Your task to perform on an android device: Open Chrome and go to the settings page Image 0: 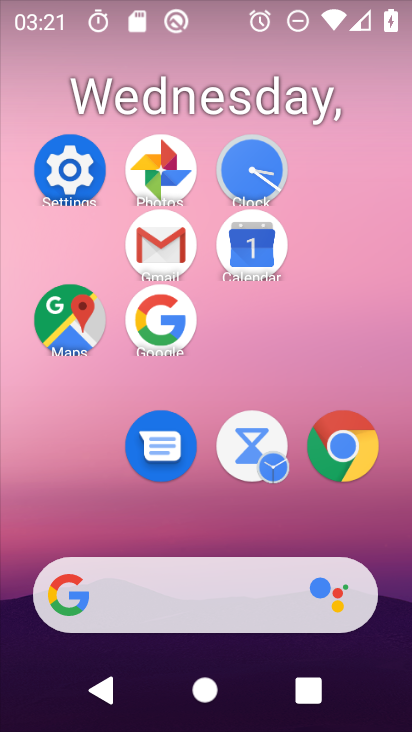
Step 0: click (351, 443)
Your task to perform on an android device: Open Chrome and go to the settings page Image 1: 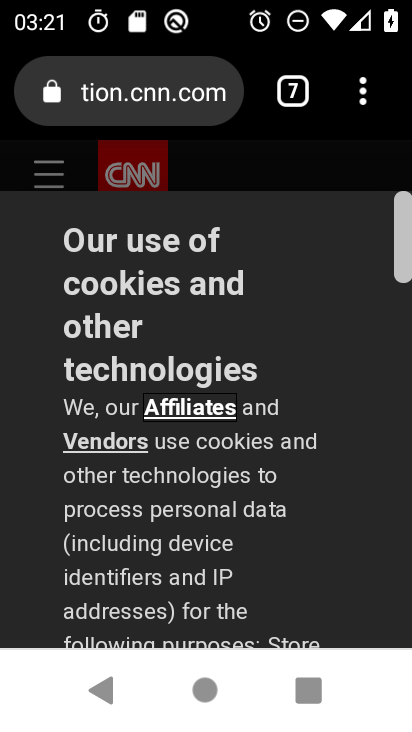
Step 1: click (377, 84)
Your task to perform on an android device: Open Chrome and go to the settings page Image 2: 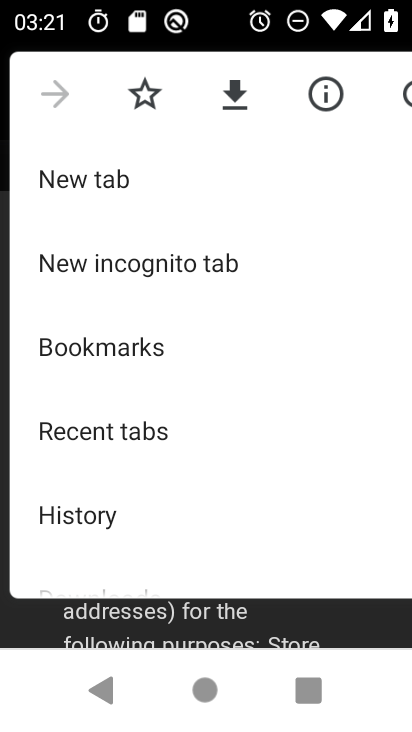
Step 2: drag from (138, 479) to (167, 198)
Your task to perform on an android device: Open Chrome and go to the settings page Image 3: 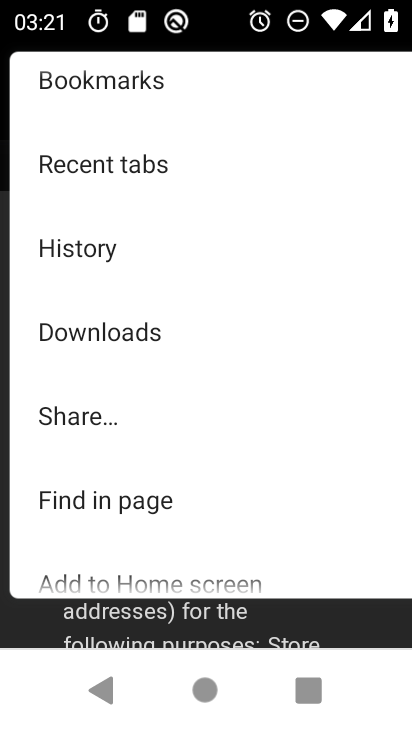
Step 3: drag from (209, 436) to (212, 230)
Your task to perform on an android device: Open Chrome and go to the settings page Image 4: 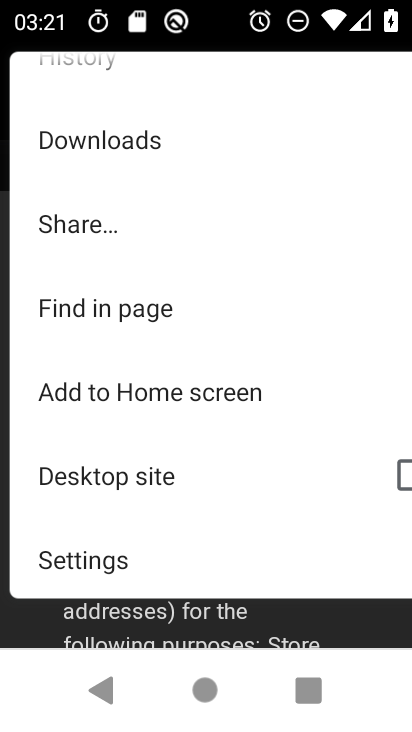
Step 4: click (144, 552)
Your task to perform on an android device: Open Chrome and go to the settings page Image 5: 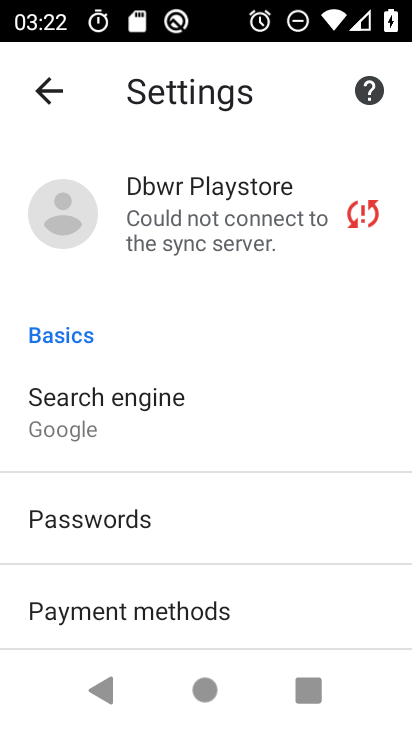
Step 5: task complete